Your task to perform on an android device: open a bookmark in the chrome app Image 0: 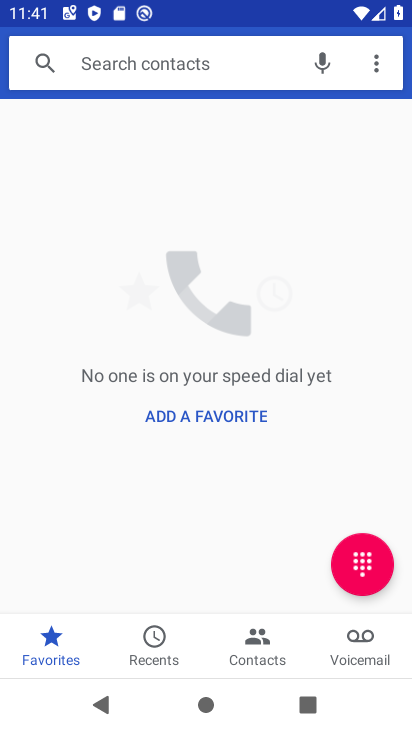
Step 0: press home button
Your task to perform on an android device: open a bookmark in the chrome app Image 1: 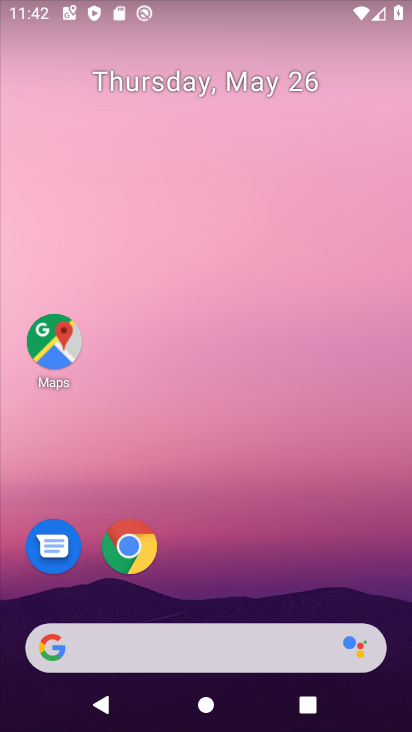
Step 1: click (131, 550)
Your task to perform on an android device: open a bookmark in the chrome app Image 2: 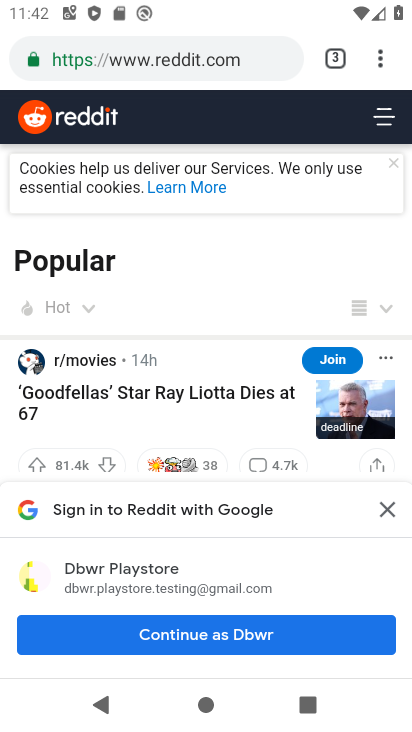
Step 2: click (376, 59)
Your task to perform on an android device: open a bookmark in the chrome app Image 3: 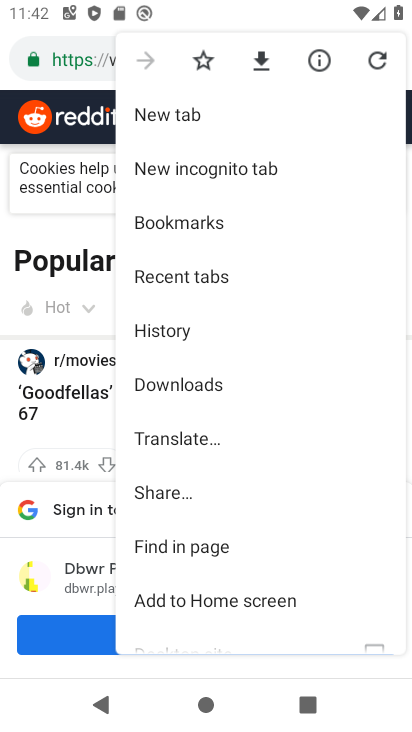
Step 3: click (187, 220)
Your task to perform on an android device: open a bookmark in the chrome app Image 4: 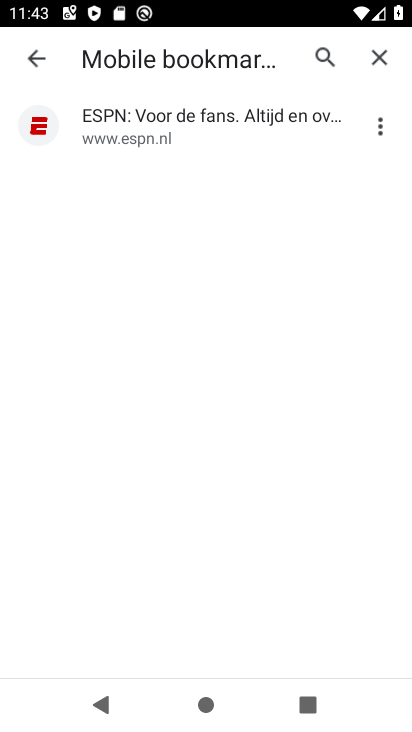
Step 4: task complete